Your task to perform on an android device: Open CNN.com Image 0: 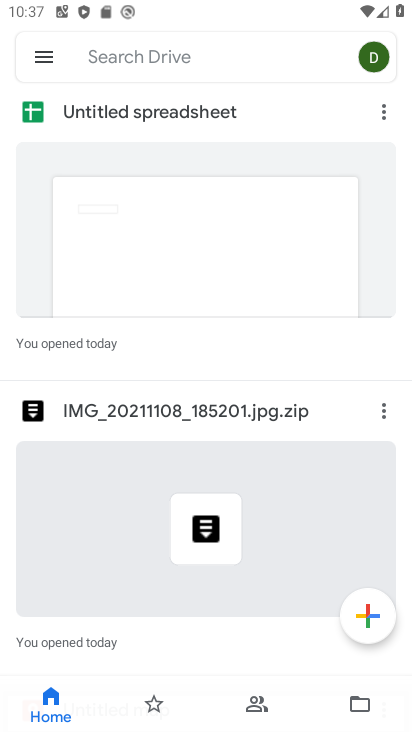
Step 0: press home button
Your task to perform on an android device: Open CNN.com Image 1: 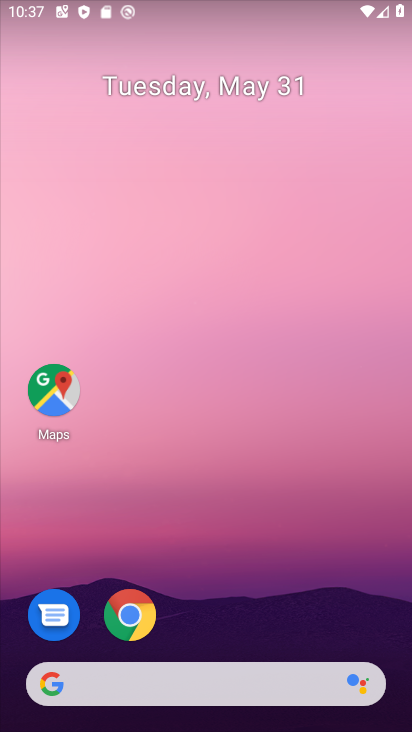
Step 1: click (261, 700)
Your task to perform on an android device: Open CNN.com Image 2: 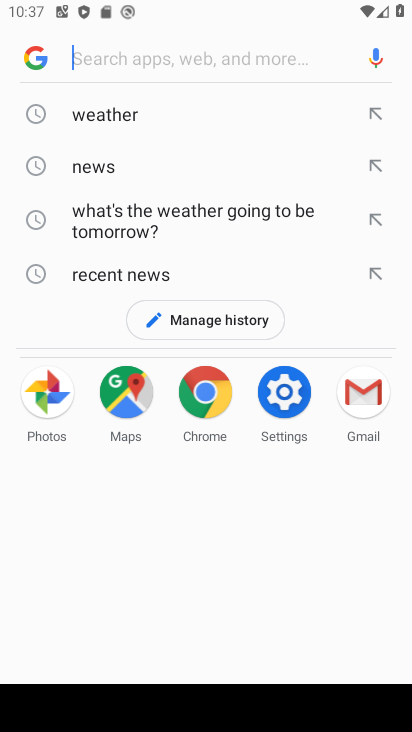
Step 2: type "cnn.com"
Your task to perform on an android device: Open CNN.com Image 3: 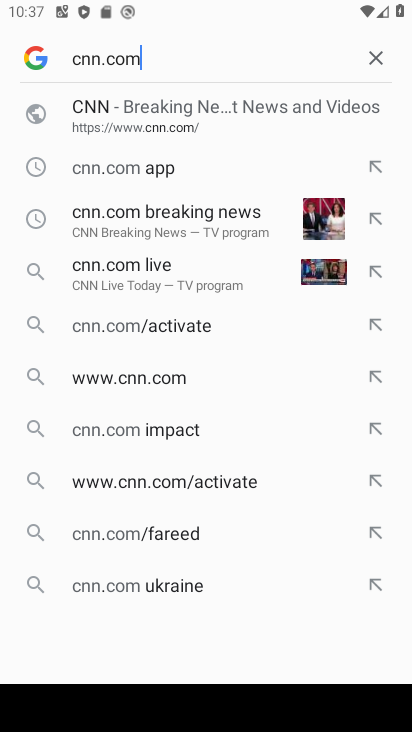
Step 3: click (104, 124)
Your task to perform on an android device: Open CNN.com Image 4: 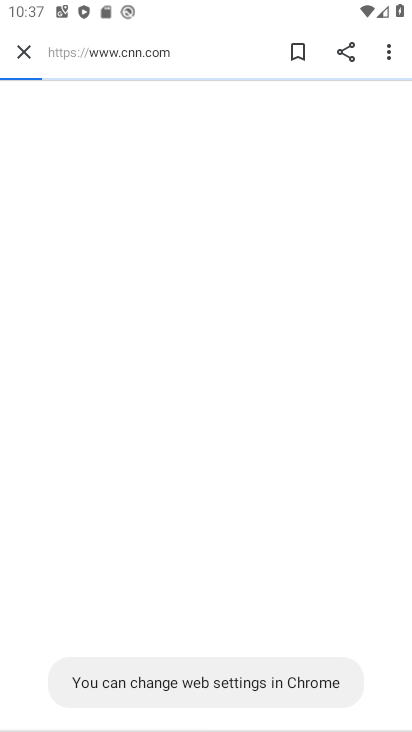
Step 4: task complete